Your task to perform on an android device: turn on airplane mode Image 0: 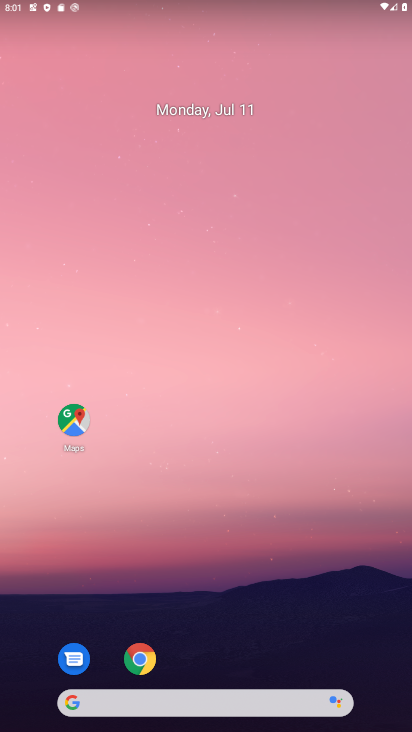
Step 0: drag from (195, 659) to (224, 160)
Your task to perform on an android device: turn on airplane mode Image 1: 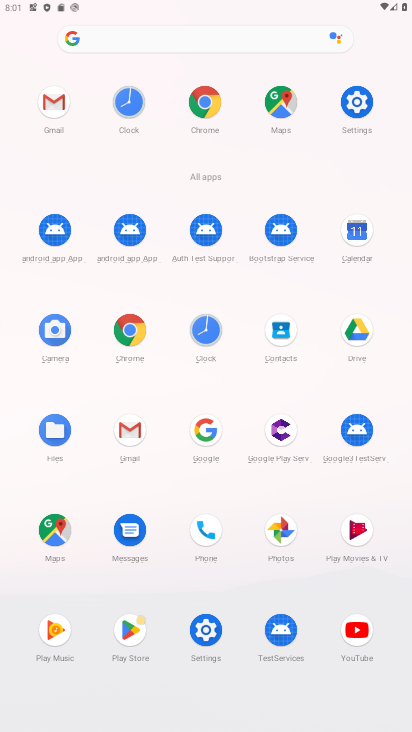
Step 1: click (357, 96)
Your task to perform on an android device: turn on airplane mode Image 2: 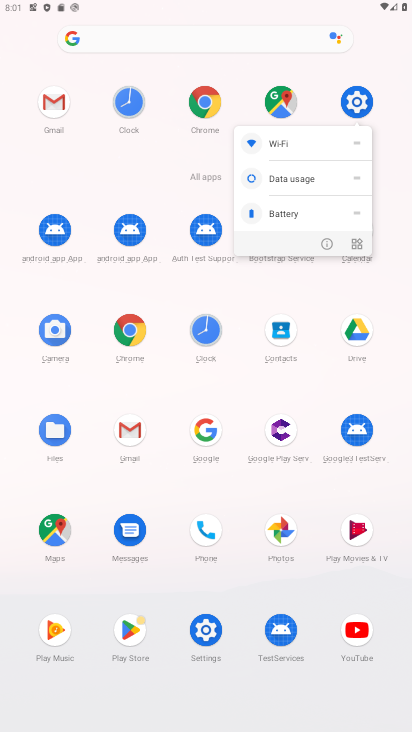
Step 2: click (329, 243)
Your task to perform on an android device: turn on airplane mode Image 3: 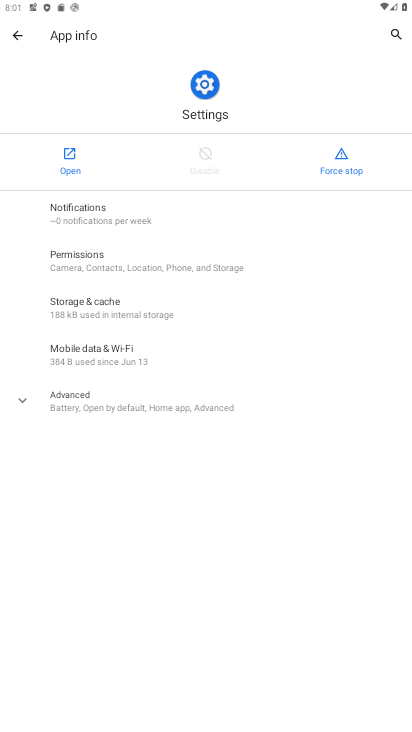
Step 3: click (68, 161)
Your task to perform on an android device: turn on airplane mode Image 4: 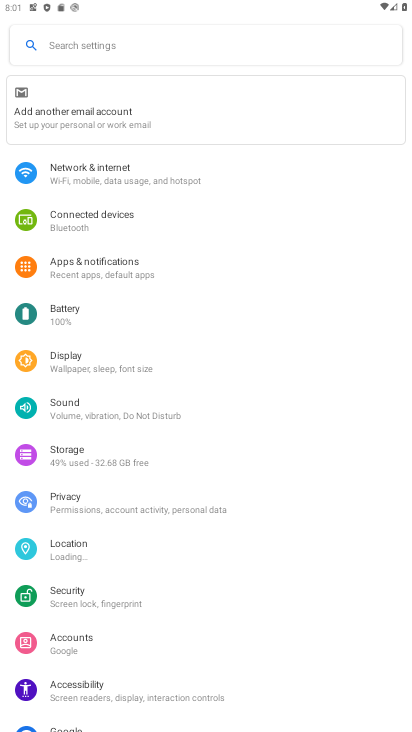
Step 4: click (113, 169)
Your task to perform on an android device: turn on airplane mode Image 5: 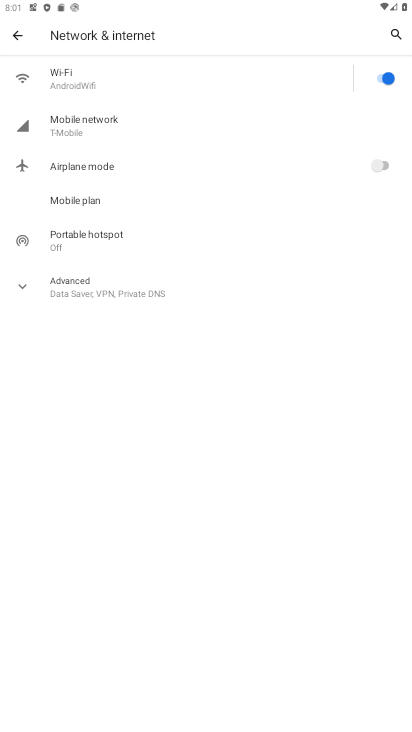
Step 5: click (361, 165)
Your task to perform on an android device: turn on airplane mode Image 6: 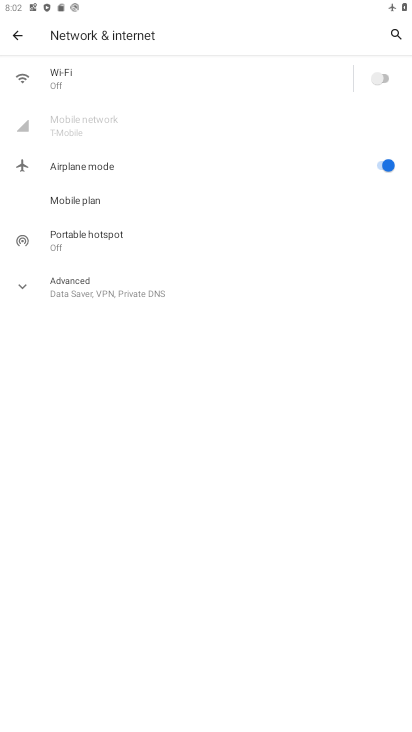
Step 6: task complete